Your task to perform on an android device: Turn off the flashlight Image 0: 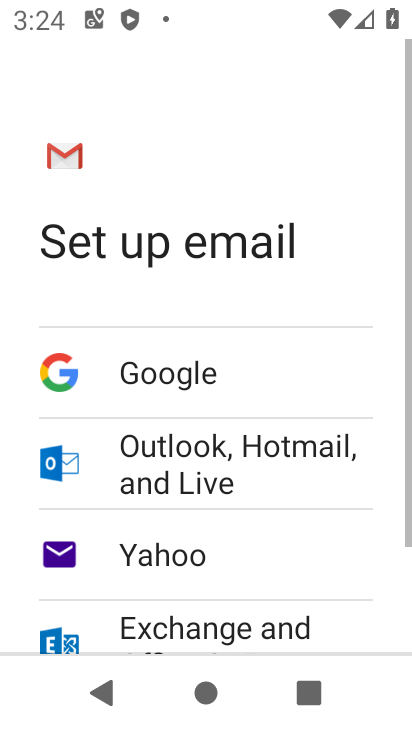
Step 0: press home button
Your task to perform on an android device: Turn off the flashlight Image 1: 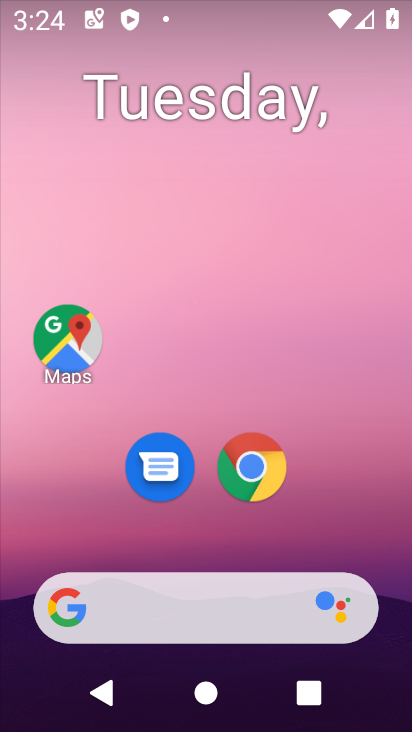
Step 1: drag from (212, 540) to (128, 11)
Your task to perform on an android device: Turn off the flashlight Image 2: 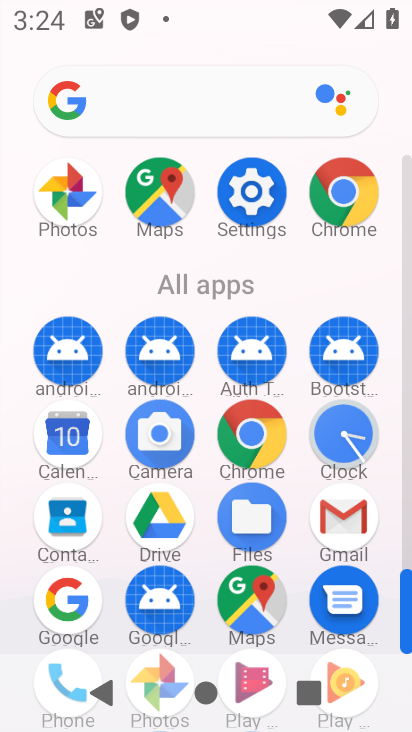
Step 2: click (243, 188)
Your task to perform on an android device: Turn off the flashlight Image 3: 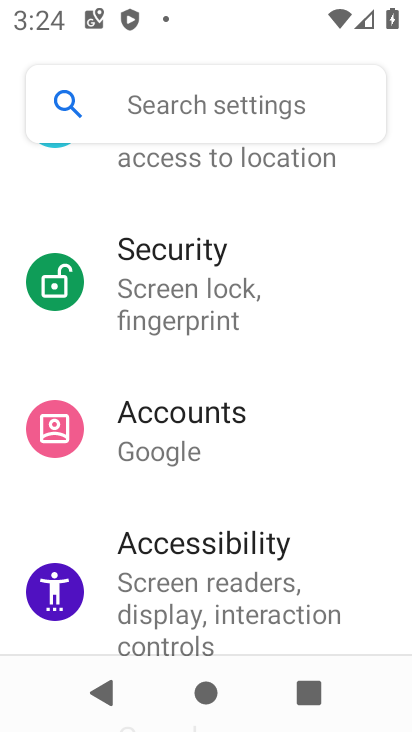
Step 3: click (203, 112)
Your task to perform on an android device: Turn off the flashlight Image 4: 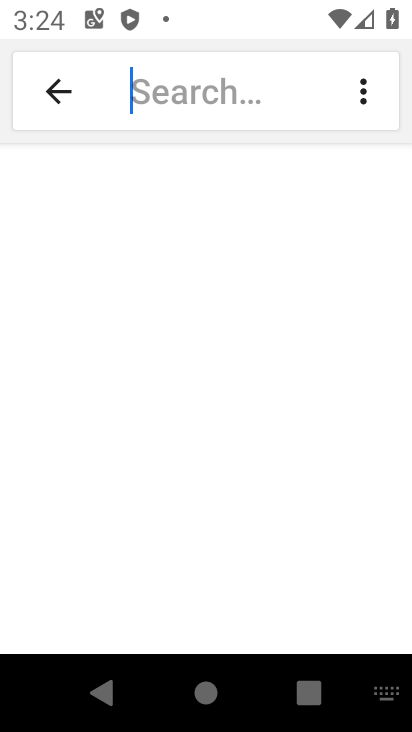
Step 4: type "flashlight"
Your task to perform on an android device: Turn off the flashlight Image 5: 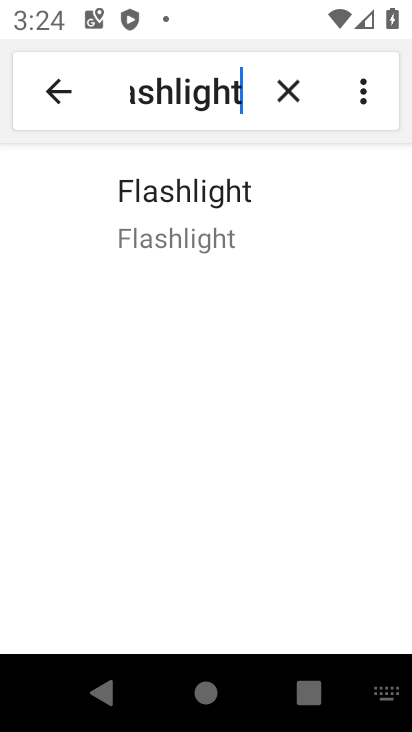
Step 5: task complete